Your task to perform on an android device: What's on my calendar tomorrow? Image 0: 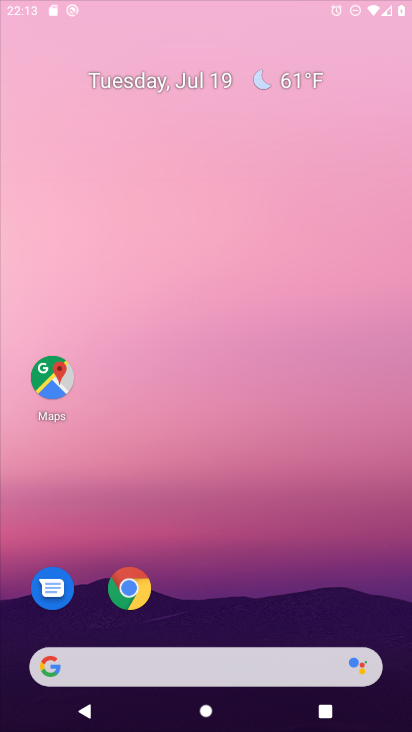
Step 0: press home button
Your task to perform on an android device: What's on my calendar tomorrow? Image 1: 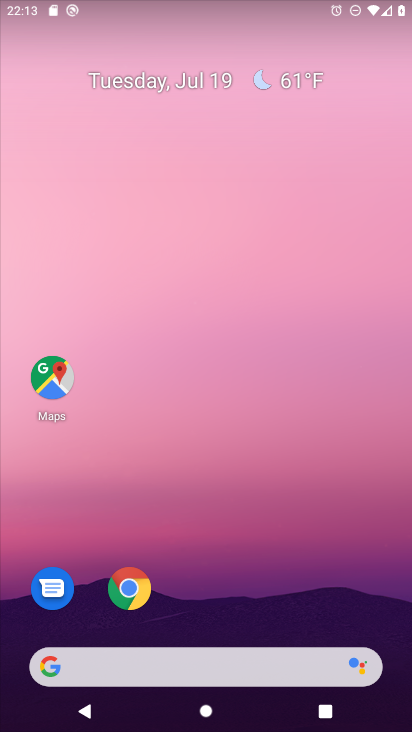
Step 1: drag from (210, 628) to (257, 0)
Your task to perform on an android device: What's on my calendar tomorrow? Image 2: 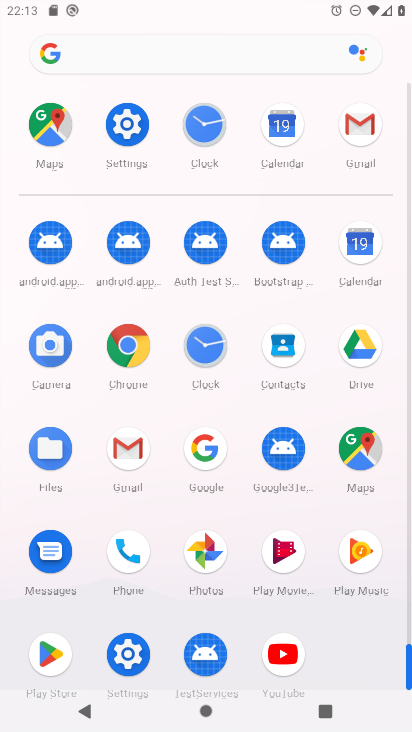
Step 2: click (360, 235)
Your task to perform on an android device: What's on my calendar tomorrow? Image 3: 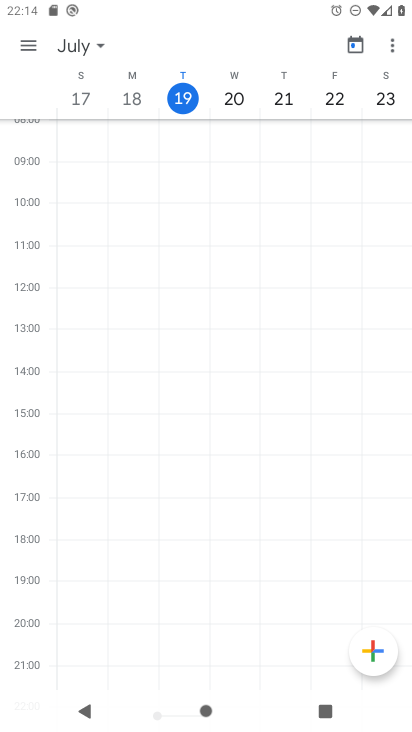
Step 3: click (229, 95)
Your task to perform on an android device: What's on my calendar tomorrow? Image 4: 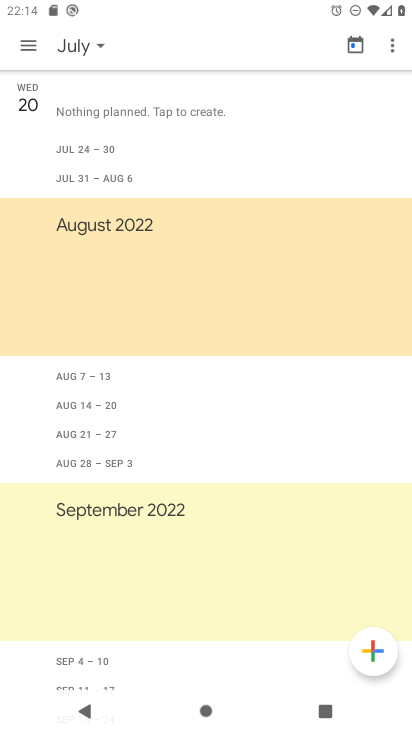
Step 4: click (34, 99)
Your task to perform on an android device: What's on my calendar tomorrow? Image 5: 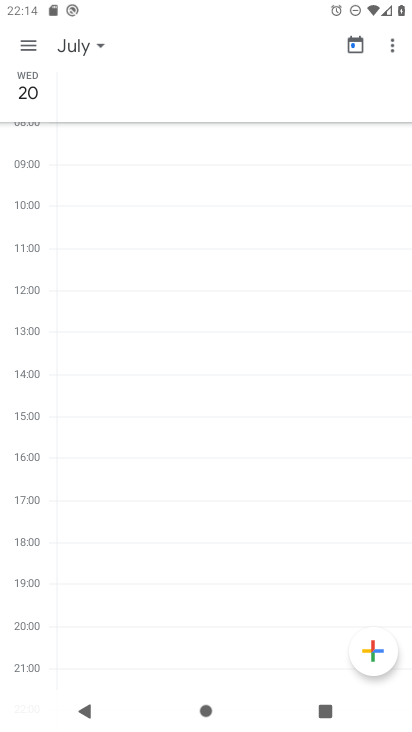
Step 5: task complete